Your task to perform on an android device: Open calendar and show me the fourth week of next month Image 0: 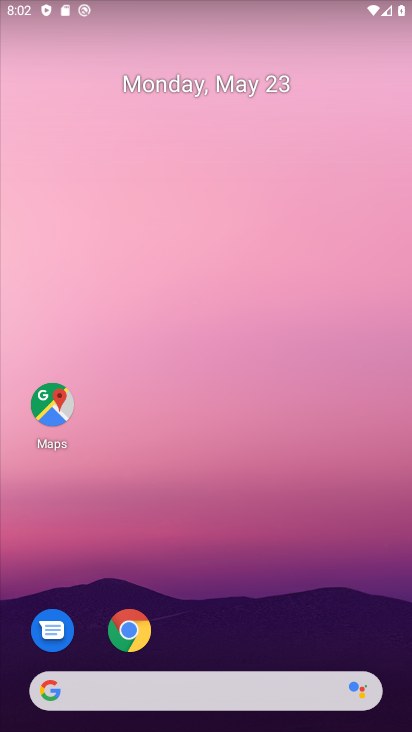
Step 0: drag from (237, 598) to (277, 42)
Your task to perform on an android device: Open calendar and show me the fourth week of next month Image 1: 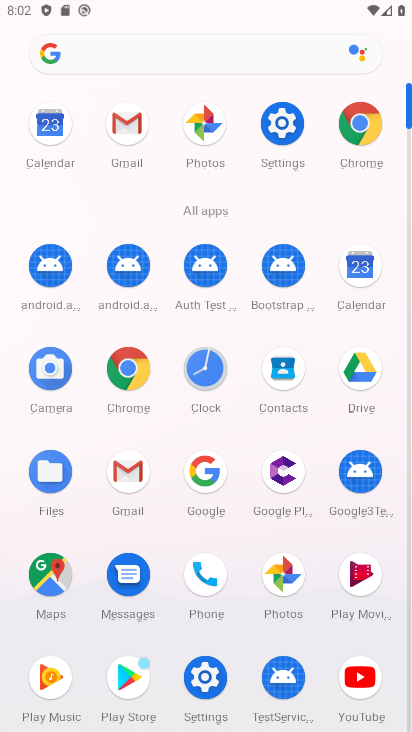
Step 1: click (361, 300)
Your task to perform on an android device: Open calendar and show me the fourth week of next month Image 2: 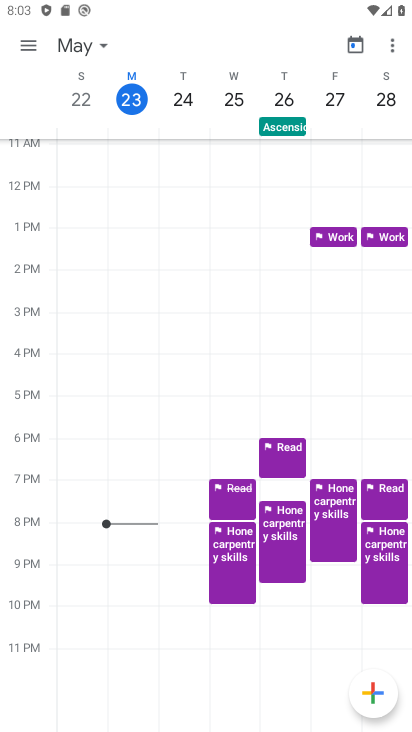
Step 2: click (73, 42)
Your task to perform on an android device: Open calendar and show me the fourth week of next month Image 3: 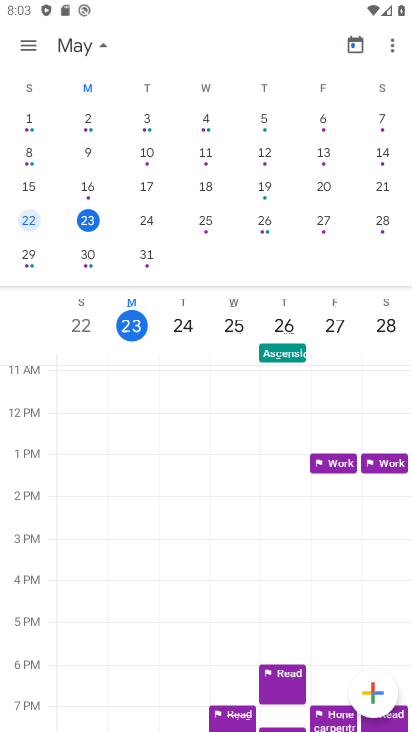
Step 3: drag from (332, 178) to (28, 182)
Your task to perform on an android device: Open calendar and show me the fourth week of next month Image 4: 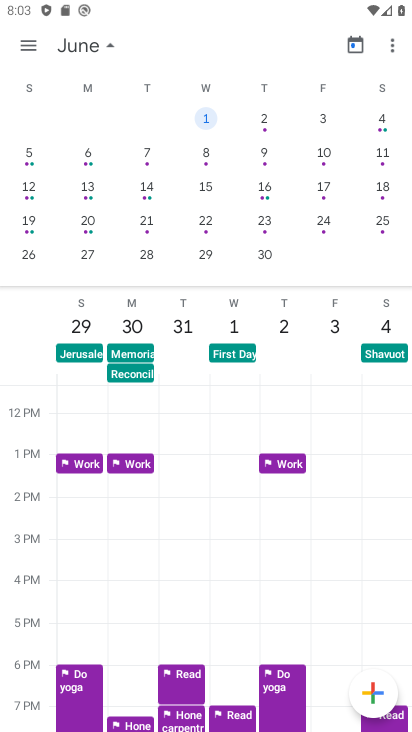
Step 4: click (25, 260)
Your task to perform on an android device: Open calendar and show me the fourth week of next month Image 5: 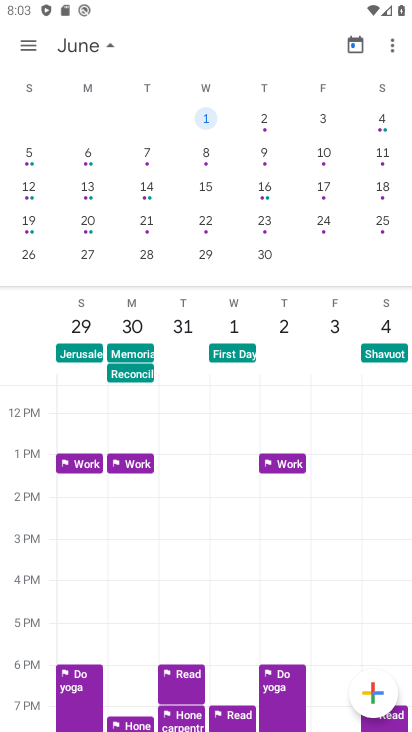
Step 5: click (25, 260)
Your task to perform on an android device: Open calendar and show me the fourth week of next month Image 6: 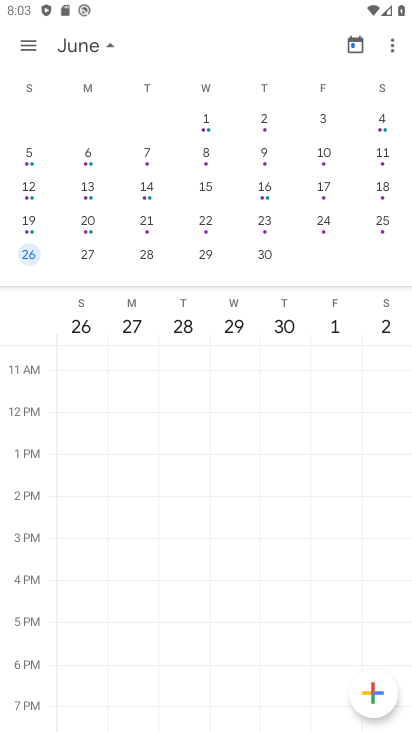
Step 6: task complete